Your task to perform on an android device: star an email in the gmail app Image 0: 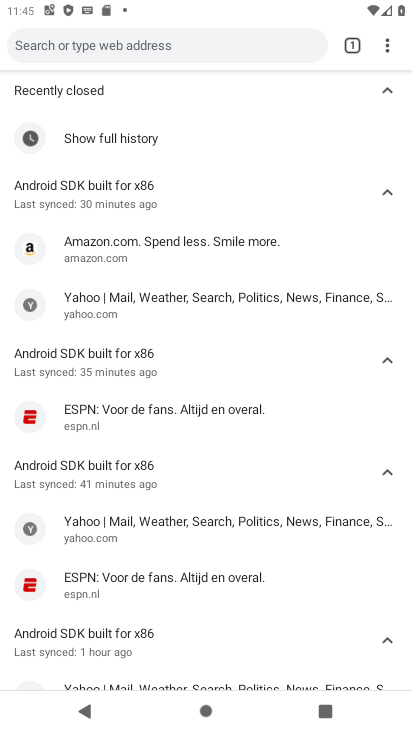
Step 0: press home button
Your task to perform on an android device: star an email in the gmail app Image 1: 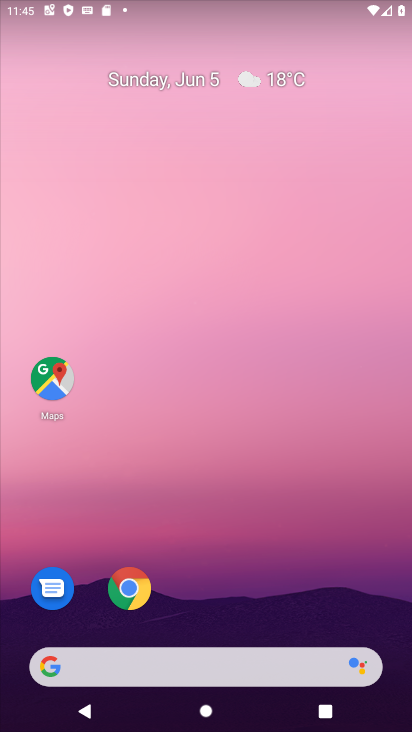
Step 1: drag from (229, 612) to (215, 258)
Your task to perform on an android device: star an email in the gmail app Image 2: 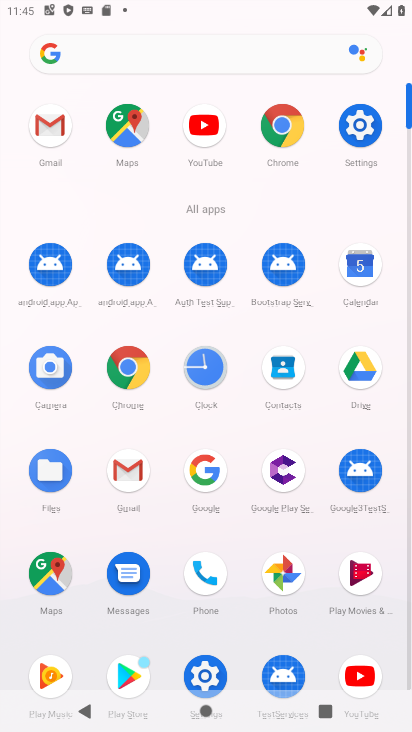
Step 2: click (58, 132)
Your task to perform on an android device: star an email in the gmail app Image 3: 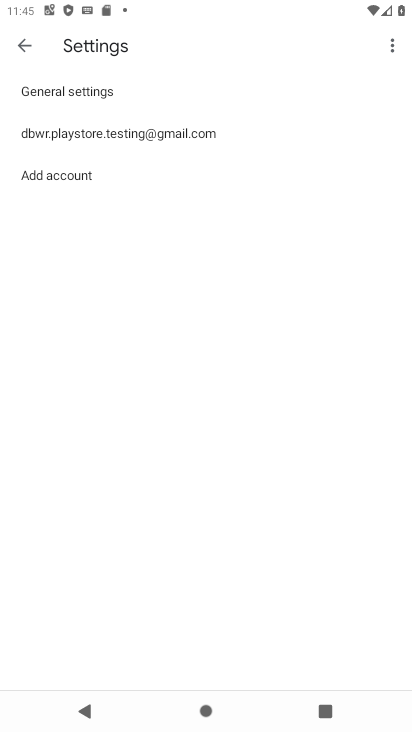
Step 3: click (29, 61)
Your task to perform on an android device: star an email in the gmail app Image 4: 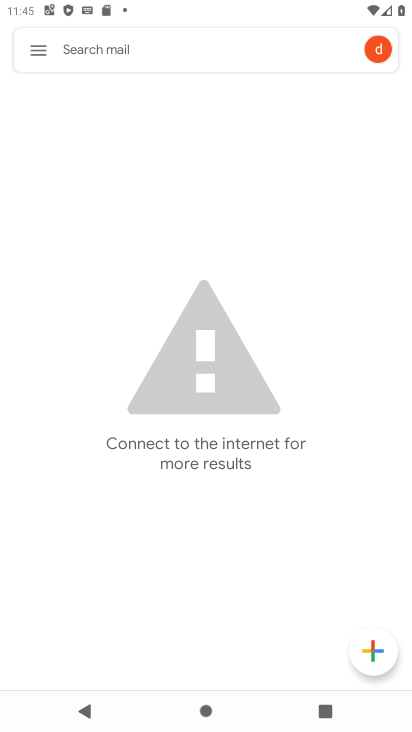
Step 4: click (29, 61)
Your task to perform on an android device: star an email in the gmail app Image 5: 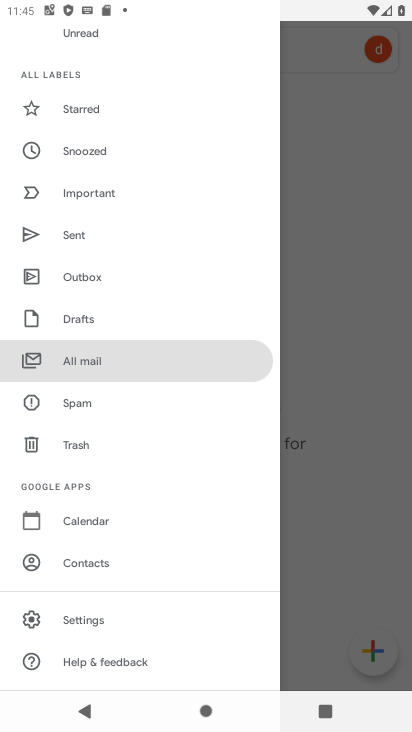
Step 5: click (105, 366)
Your task to perform on an android device: star an email in the gmail app Image 6: 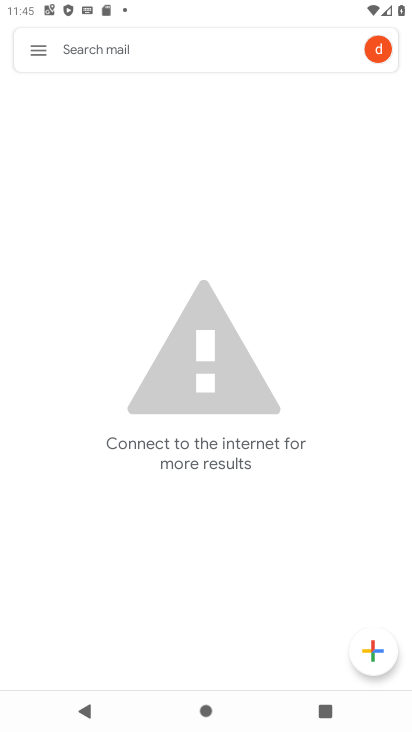
Step 6: click (105, 366)
Your task to perform on an android device: star an email in the gmail app Image 7: 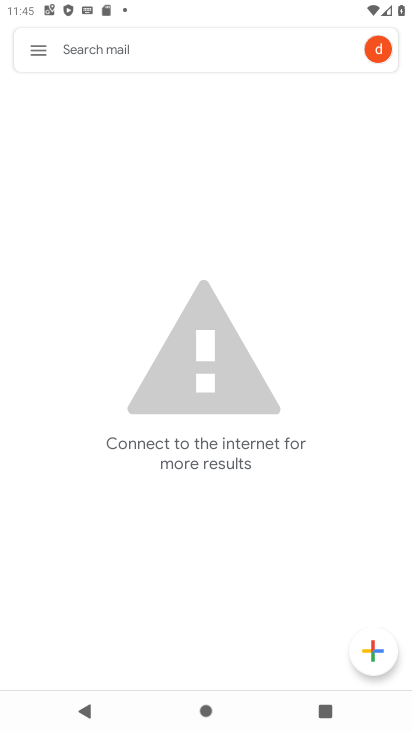
Step 7: task complete